Your task to perform on an android device: Search for "lenovo thinkpad" on amazon.com, select the first entry, add it to the cart, then select checkout. Image 0: 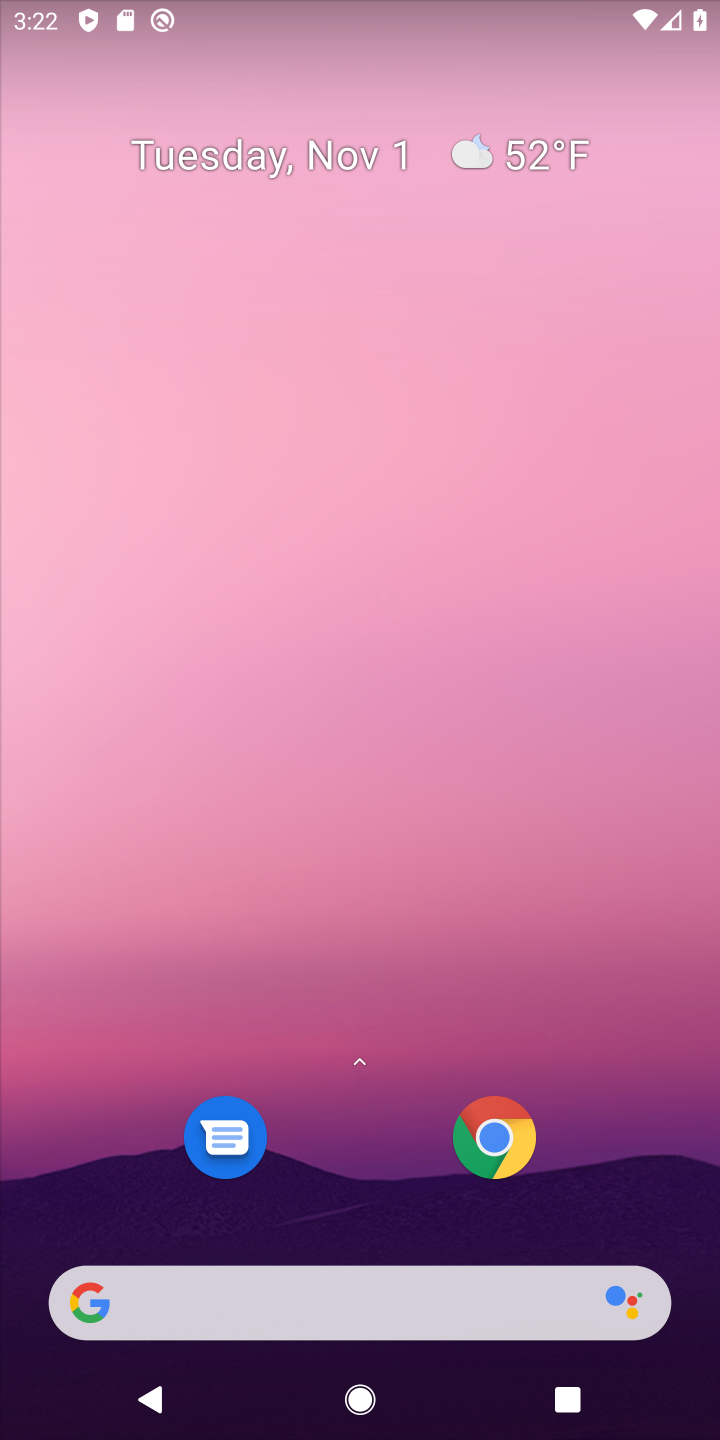
Step 0: click (315, 1305)
Your task to perform on an android device: Search for "lenovo thinkpad" on amazon.com, select the first entry, add it to the cart, then select checkout. Image 1: 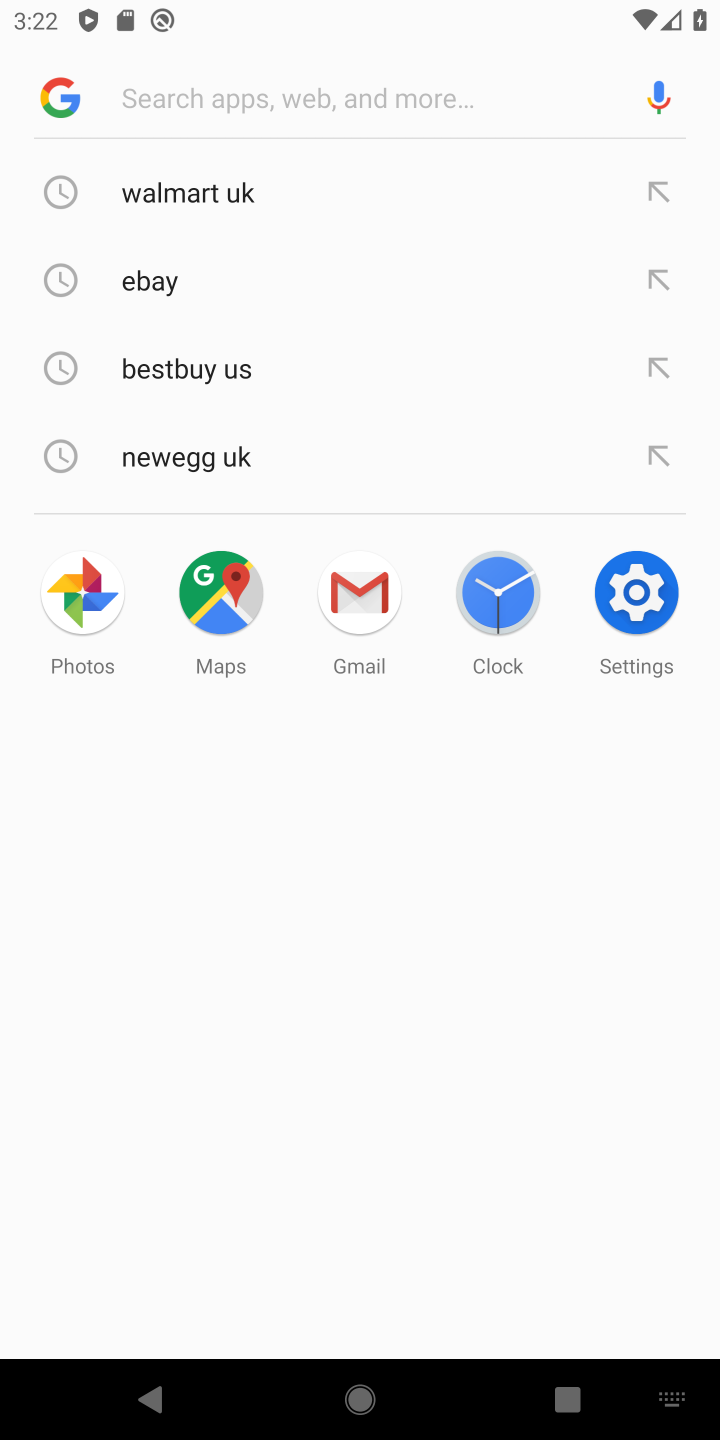
Step 1: type "amazoon"
Your task to perform on an android device: Search for "lenovo thinkpad" on amazon.com, select the first entry, add it to the cart, then select checkout. Image 2: 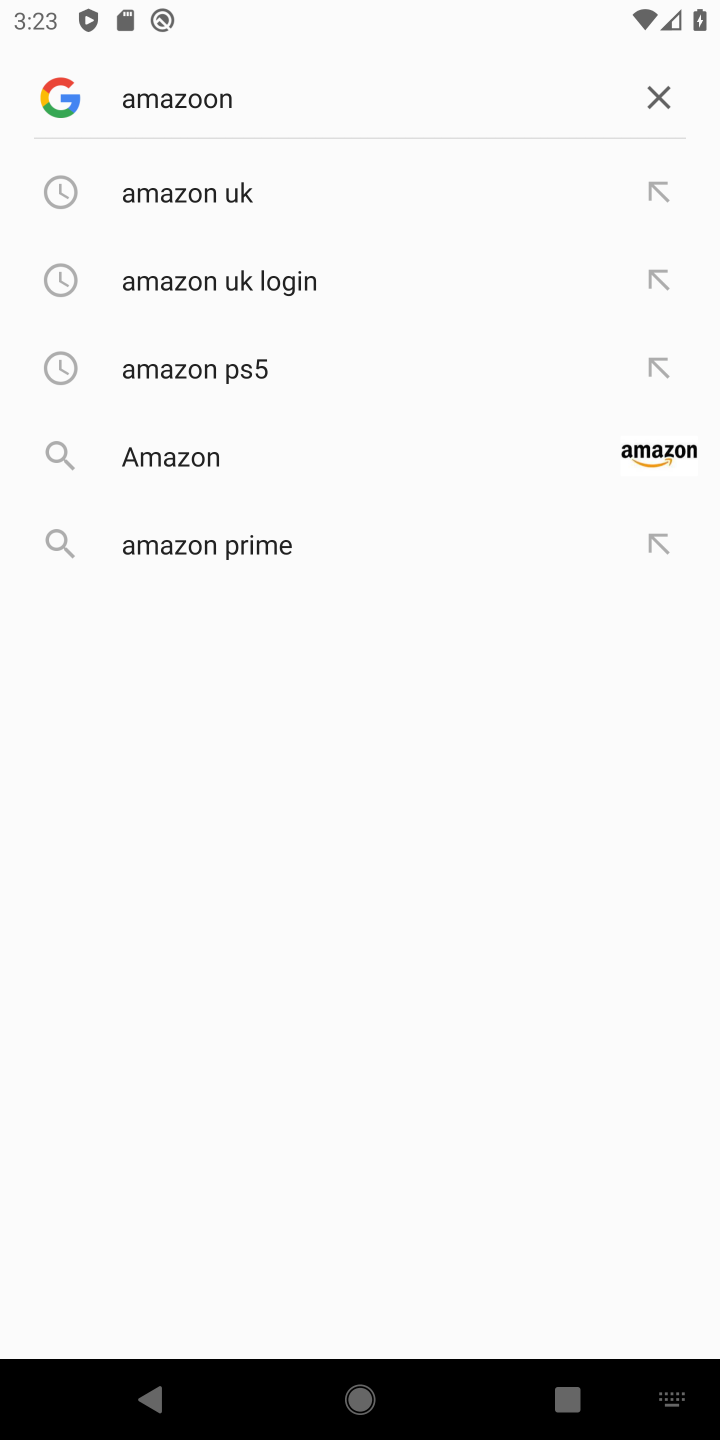
Step 2: click (143, 184)
Your task to perform on an android device: Search for "lenovo thinkpad" on amazon.com, select the first entry, add it to the cart, then select checkout. Image 3: 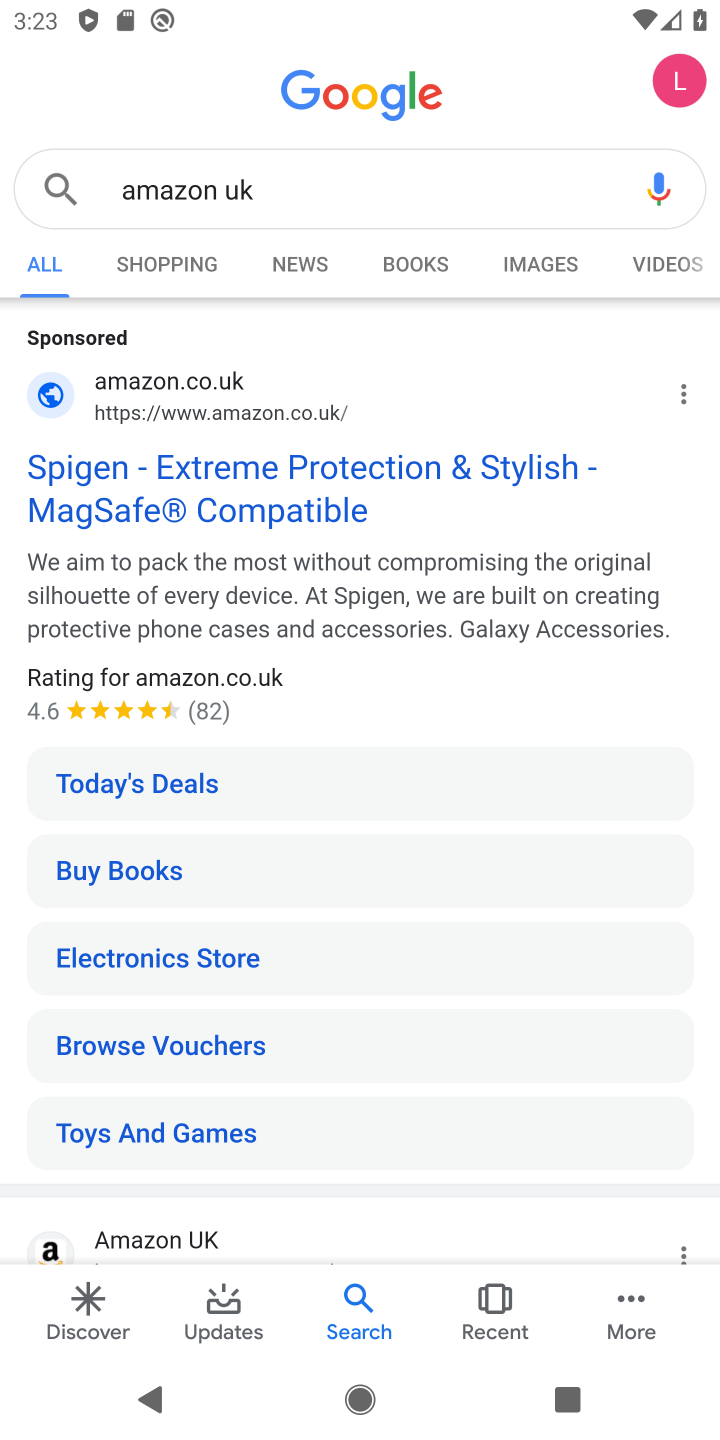
Step 3: click (220, 468)
Your task to perform on an android device: Search for "lenovo thinkpad" on amazon.com, select the first entry, add it to the cart, then select checkout. Image 4: 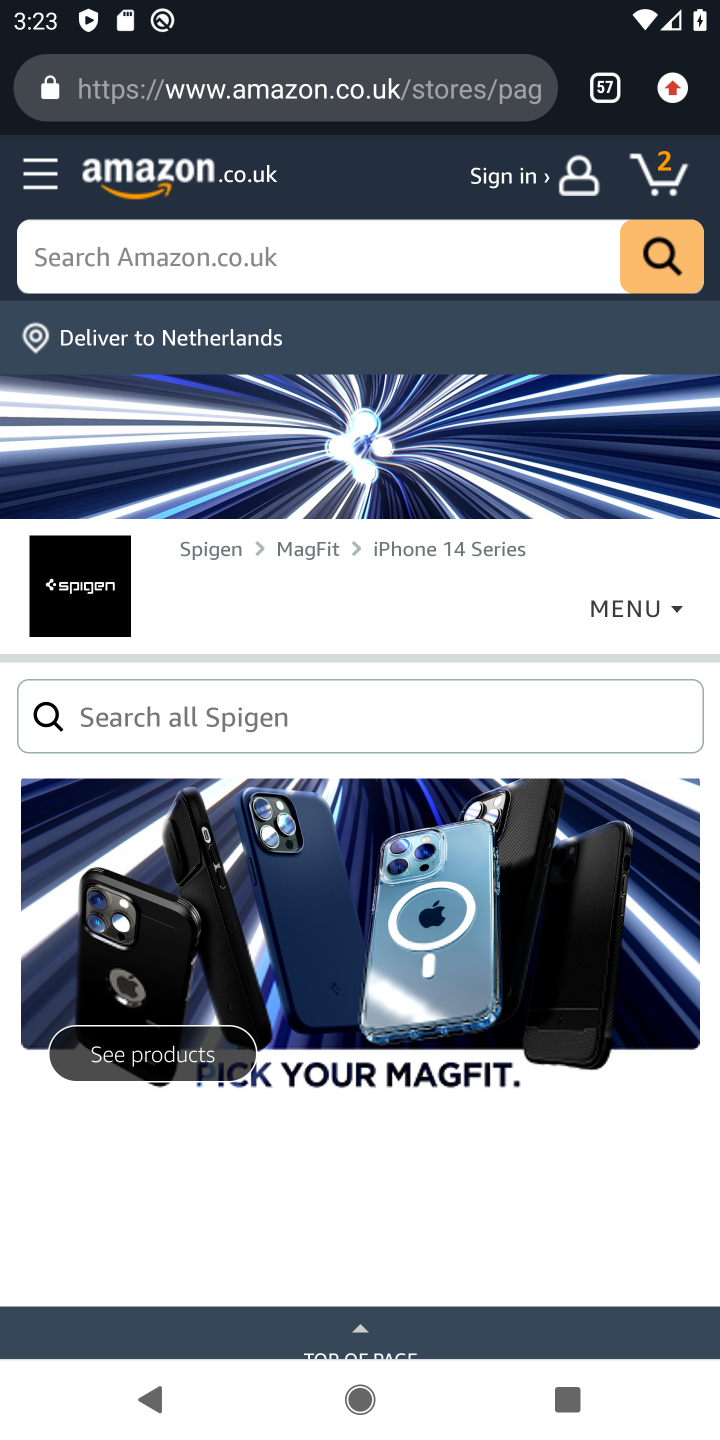
Step 4: click (465, 257)
Your task to perform on an android device: Search for "lenovo thinkpad" on amazon.com, select the first entry, add it to the cart, then select checkout. Image 5: 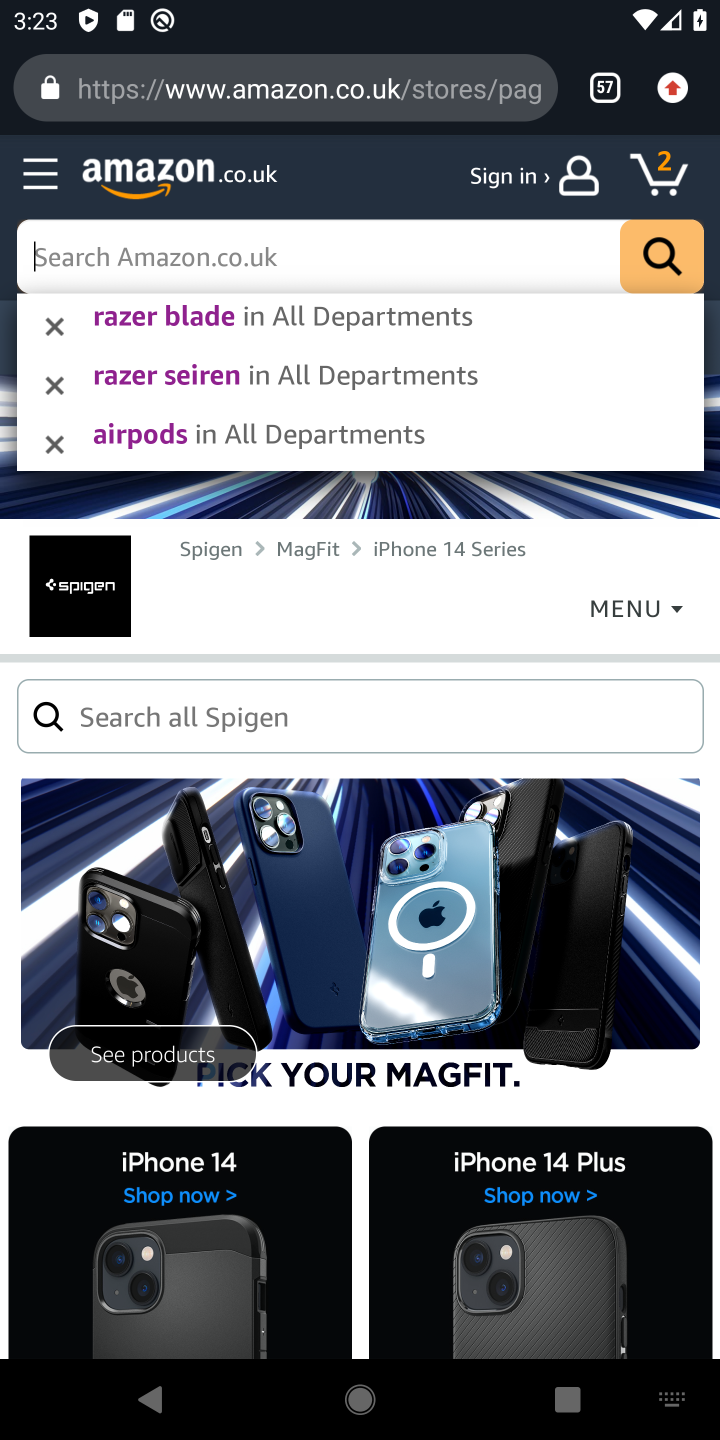
Step 5: type "lenovo thikpad"
Your task to perform on an android device: Search for "lenovo thinkpad" on amazon.com, select the first entry, add it to the cart, then select checkout. Image 6: 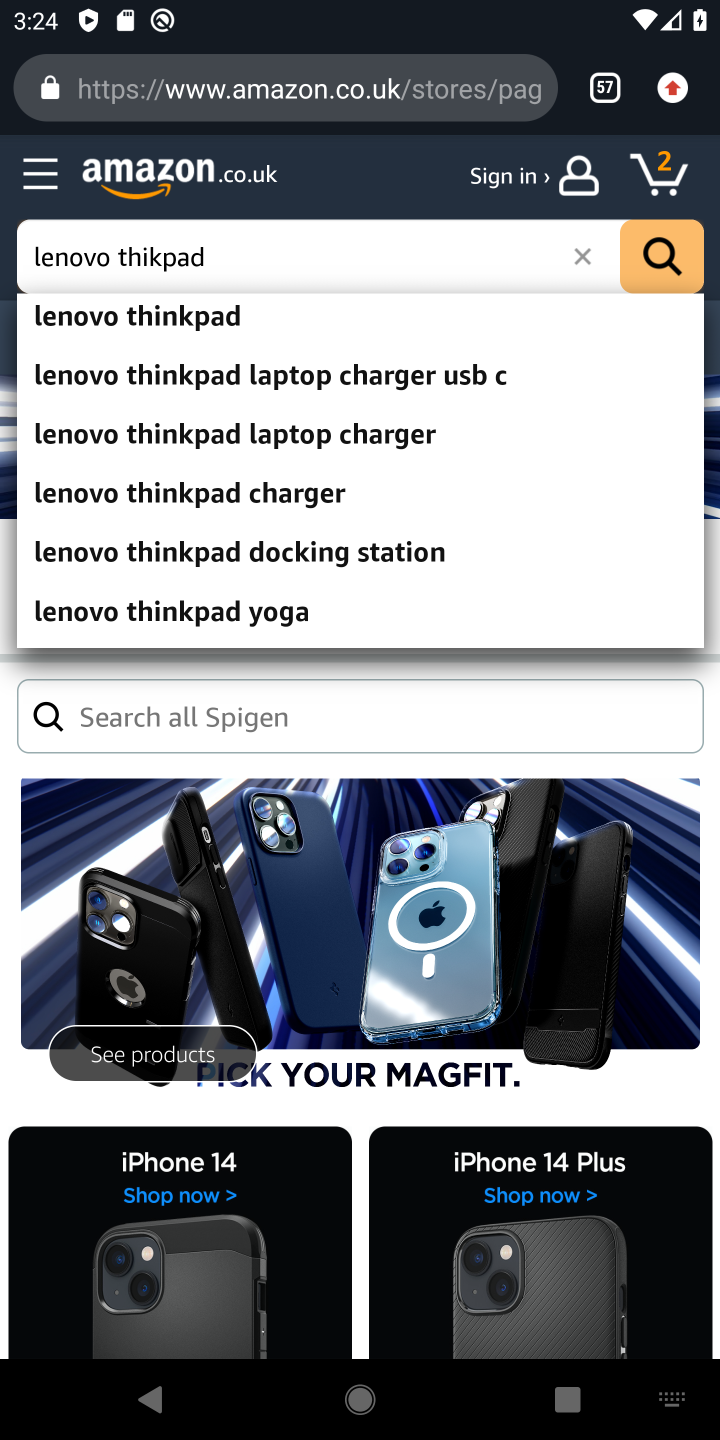
Step 6: click (171, 308)
Your task to perform on an android device: Search for "lenovo thinkpad" on amazon.com, select the first entry, add it to the cart, then select checkout. Image 7: 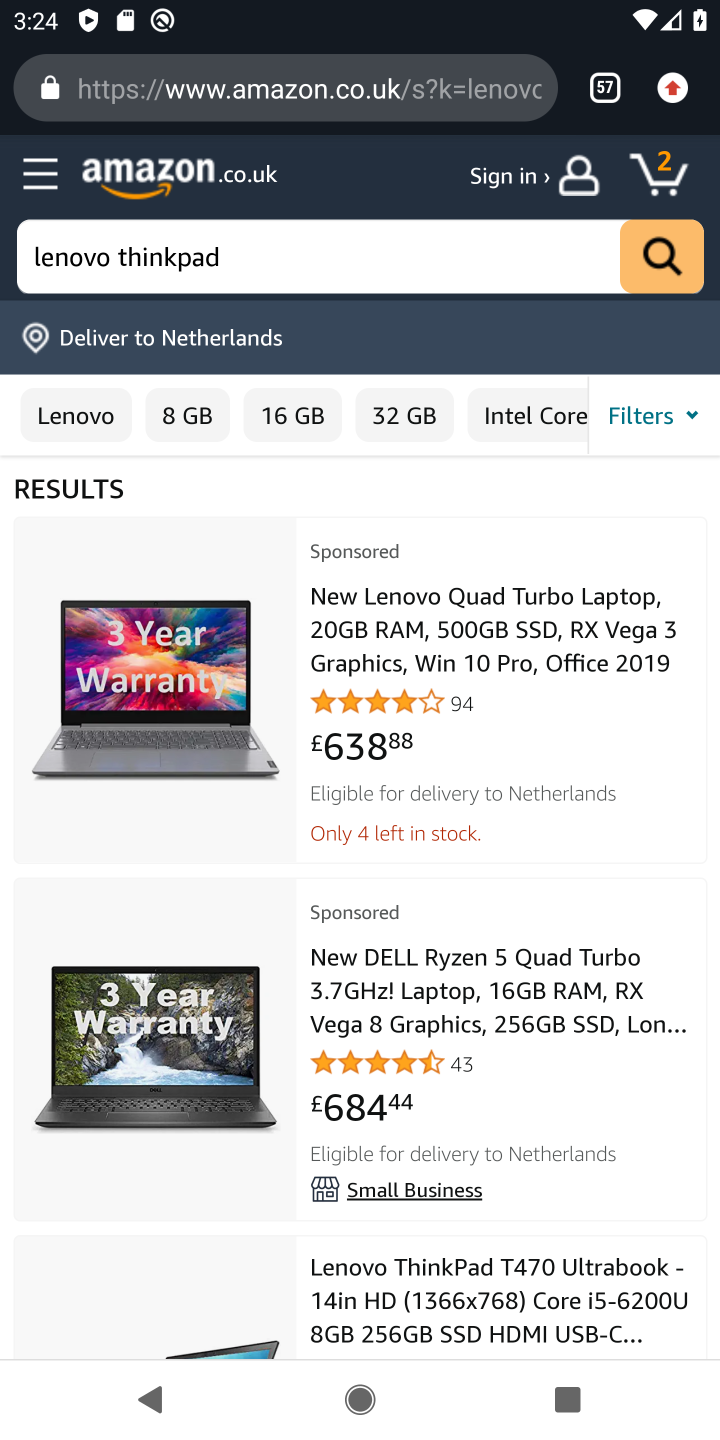
Step 7: click (453, 696)
Your task to perform on an android device: Search for "lenovo thinkpad" on amazon.com, select the first entry, add it to the cart, then select checkout. Image 8: 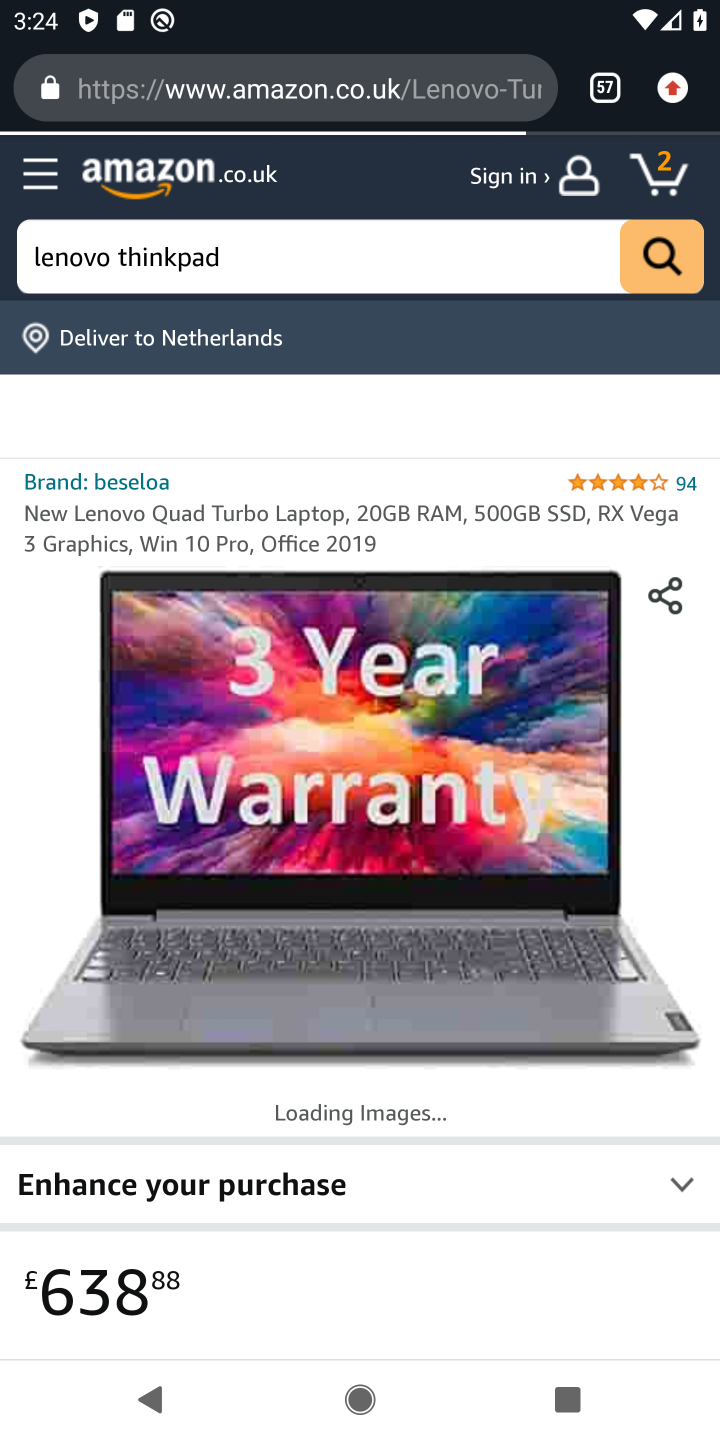
Step 8: drag from (466, 931) to (420, 357)
Your task to perform on an android device: Search for "lenovo thinkpad" on amazon.com, select the first entry, add it to the cart, then select checkout. Image 9: 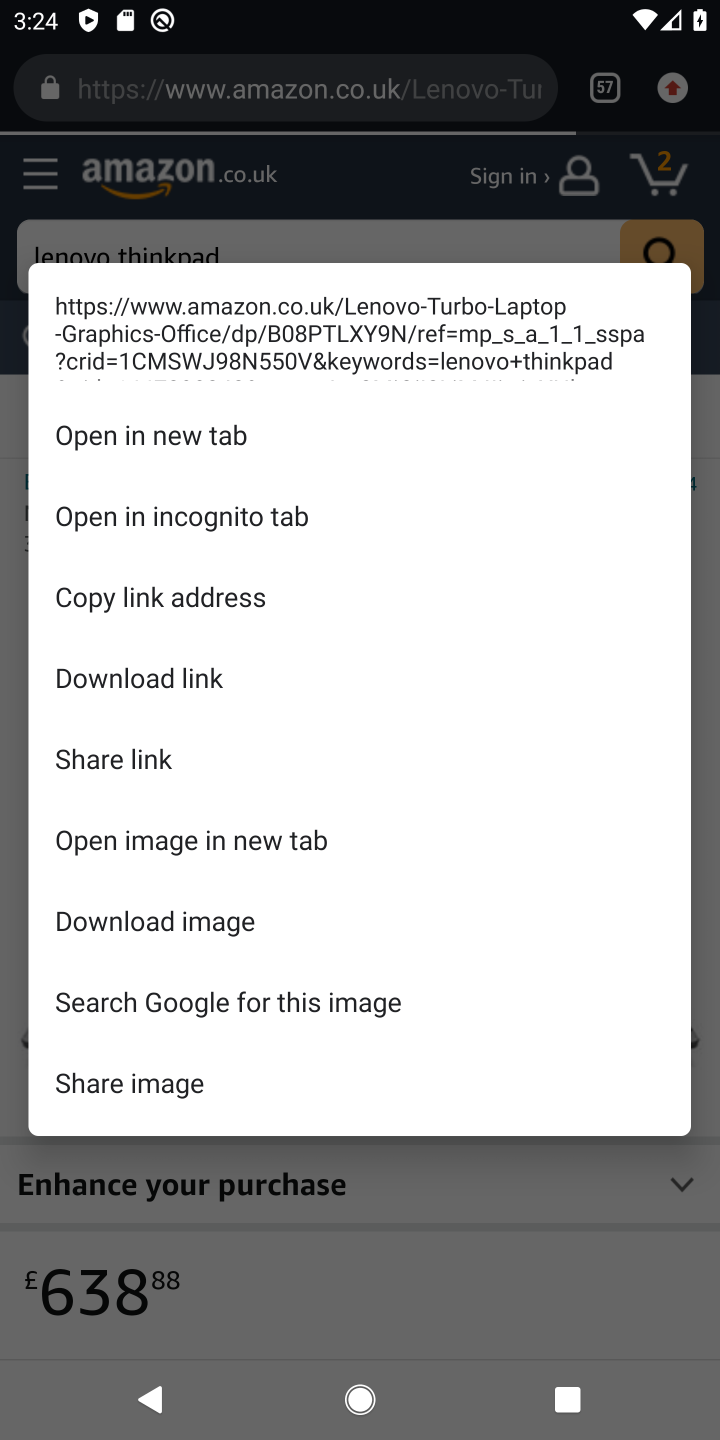
Step 9: click (476, 1163)
Your task to perform on an android device: Search for "lenovo thinkpad" on amazon.com, select the first entry, add it to the cart, then select checkout. Image 10: 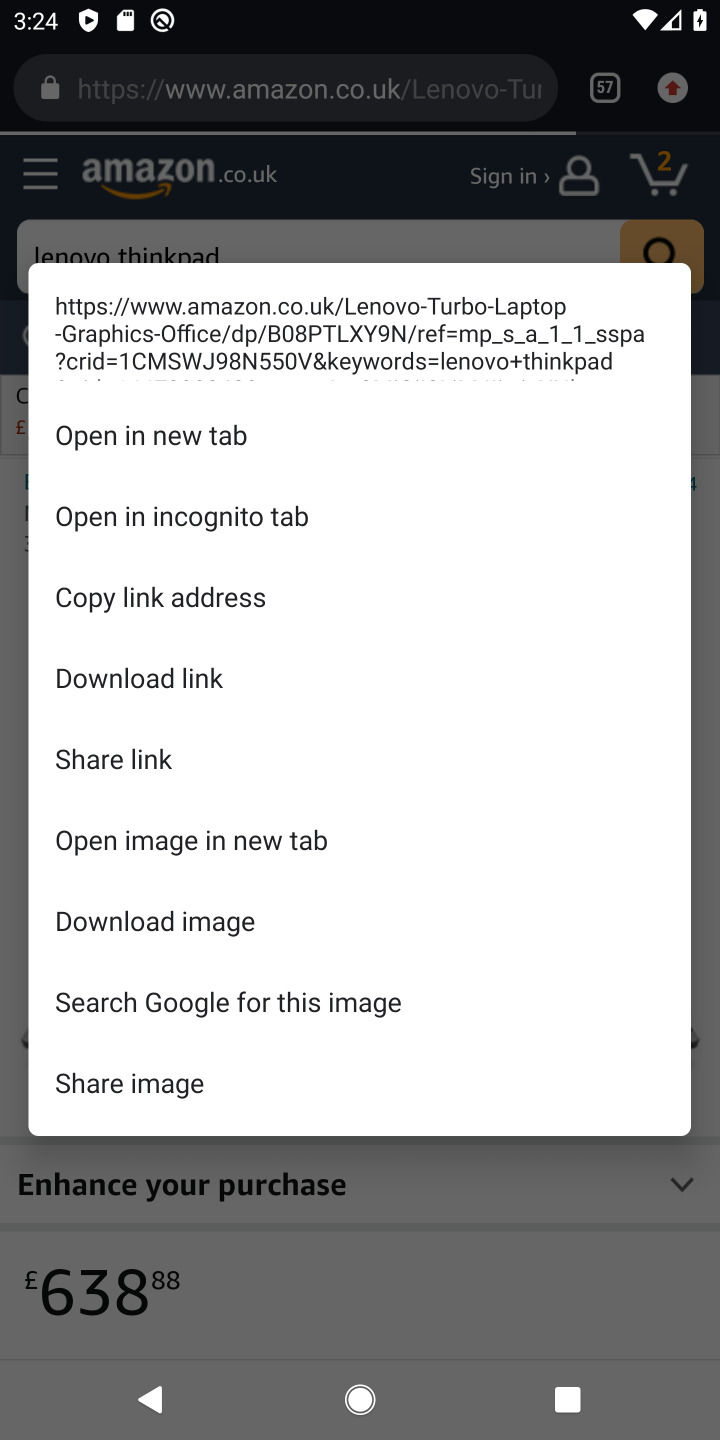
Step 10: click (538, 1273)
Your task to perform on an android device: Search for "lenovo thinkpad" on amazon.com, select the first entry, add it to the cart, then select checkout. Image 11: 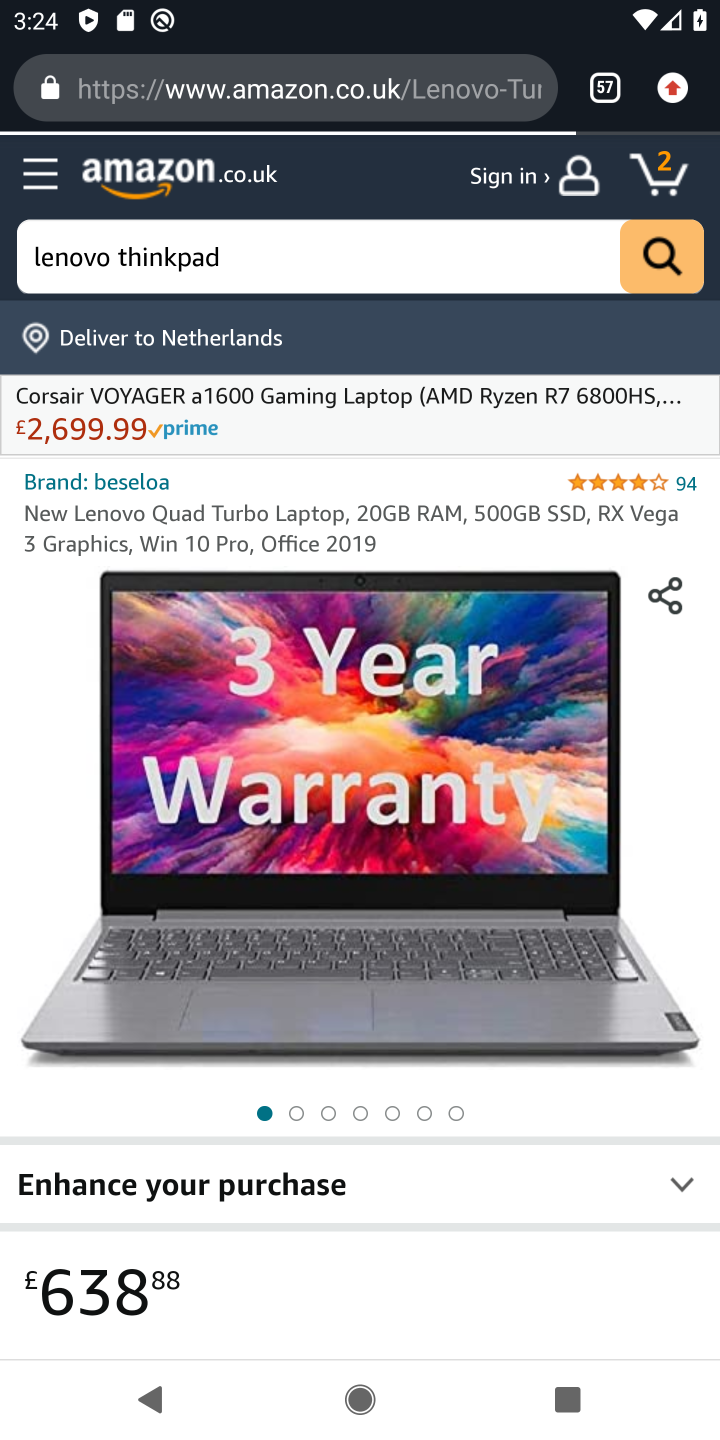
Step 11: drag from (538, 1273) to (501, 361)
Your task to perform on an android device: Search for "lenovo thinkpad" on amazon.com, select the first entry, add it to the cart, then select checkout. Image 12: 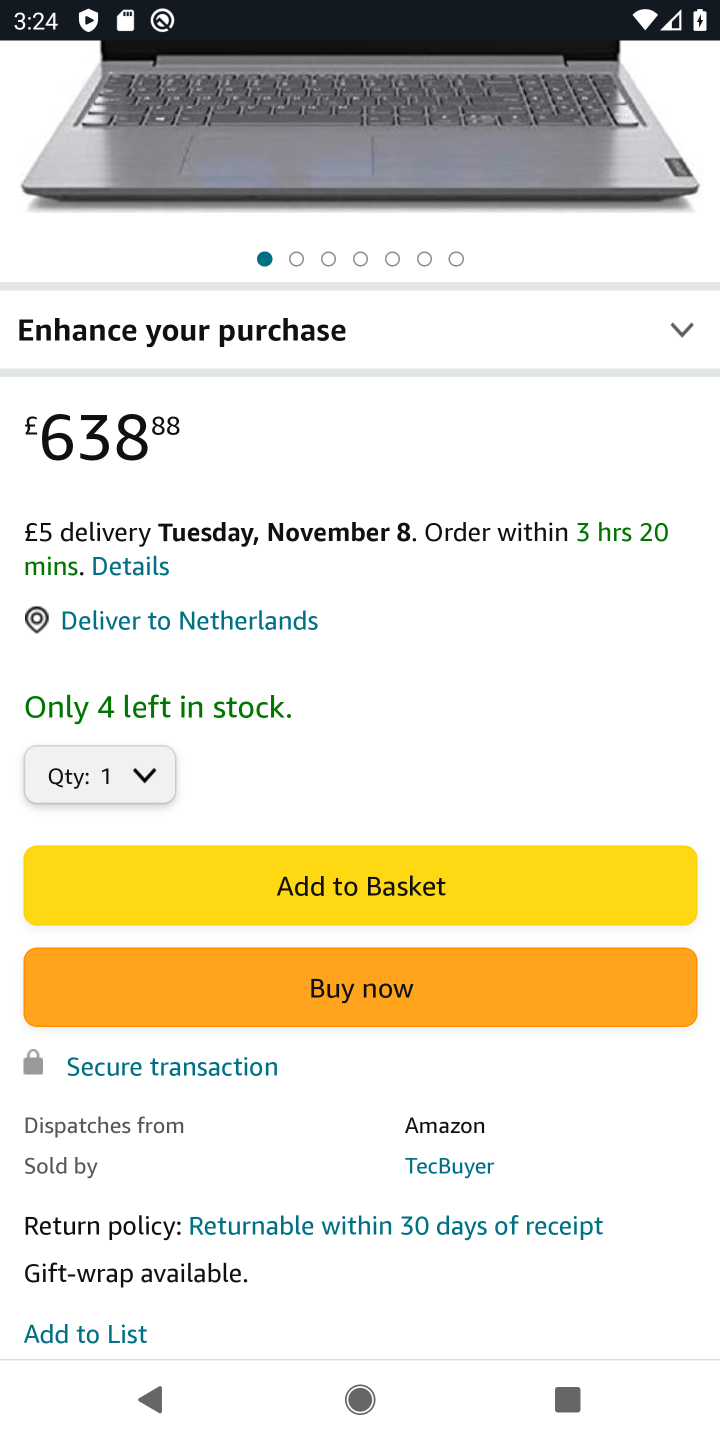
Step 12: click (538, 892)
Your task to perform on an android device: Search for "lenovo thinkpad" on amazon.com, select the first entry, add it to the cart, then select checkout. Image 13: 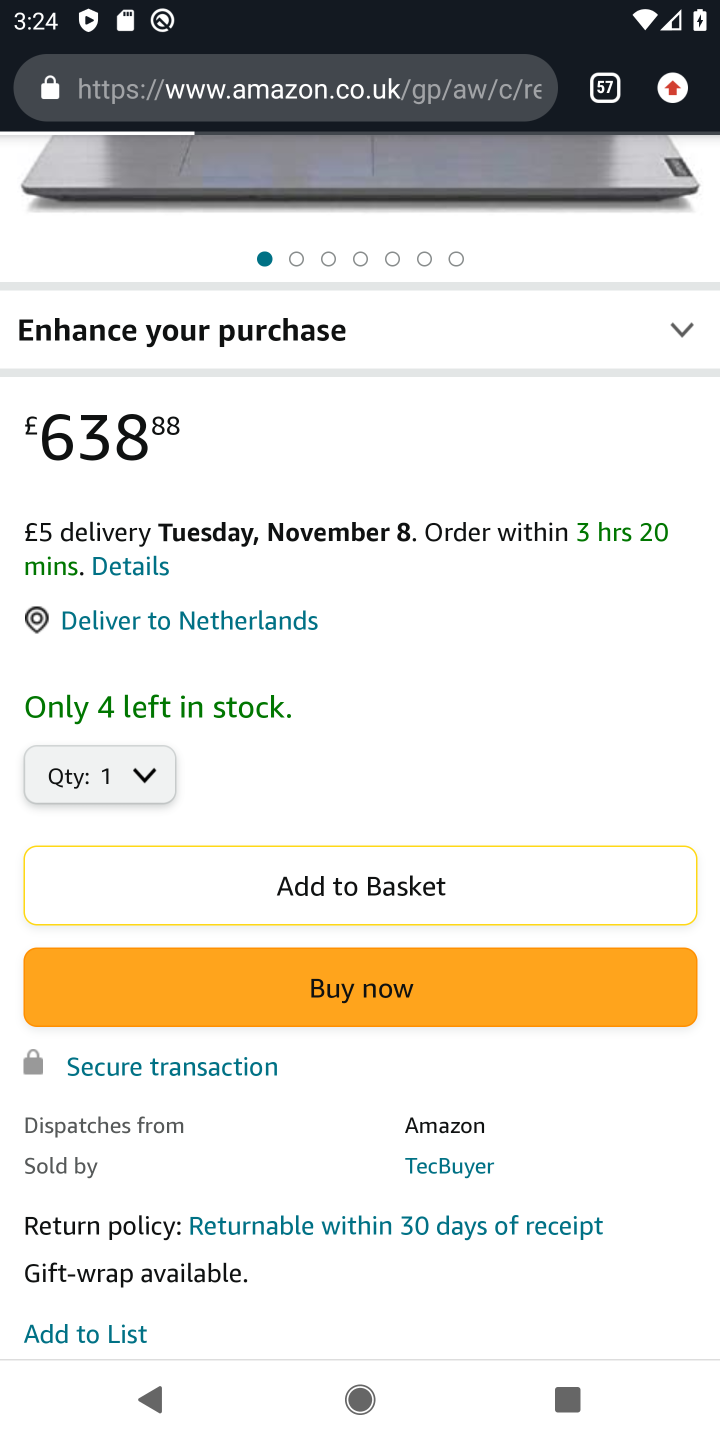
Step 13: task complete